Your task to perform on an android device: Go to ESPN.com Image 0: 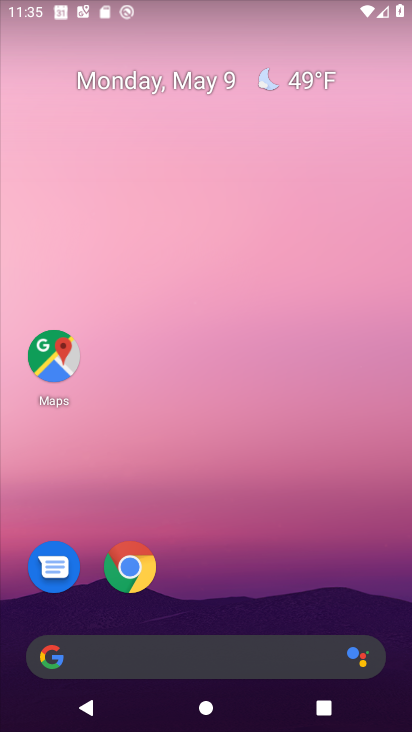
Step 0: click (125, 572)
Your task to perform on an android device: Go to ESPN.com Image 1: 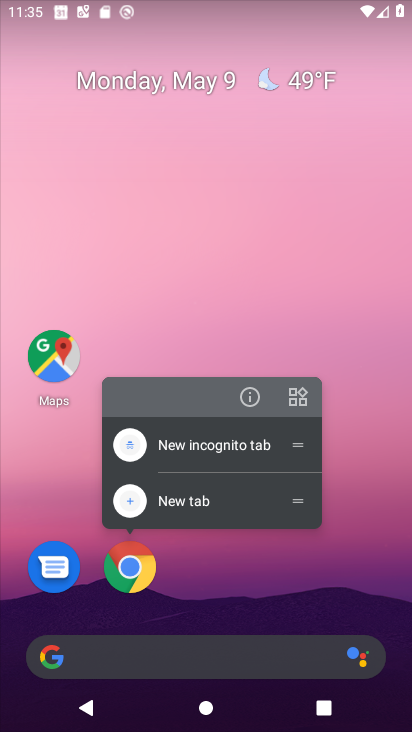
Step 1: click (125, 573)
Your task to perform on an android device: Go to ESPN.com Image 2: 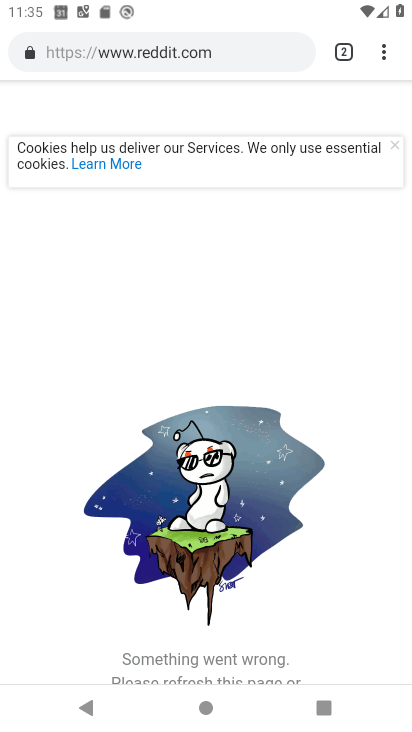
Step 2: click (341, 45)
Your task to perform on an android device: Go to ESPN.com Image 3: 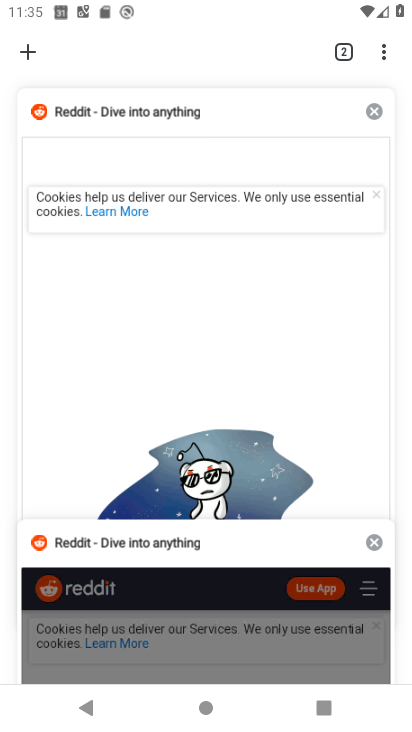
Step 3: click (25, 53)
Your task to perform on an android device: Go to ESPN.com Image 4: 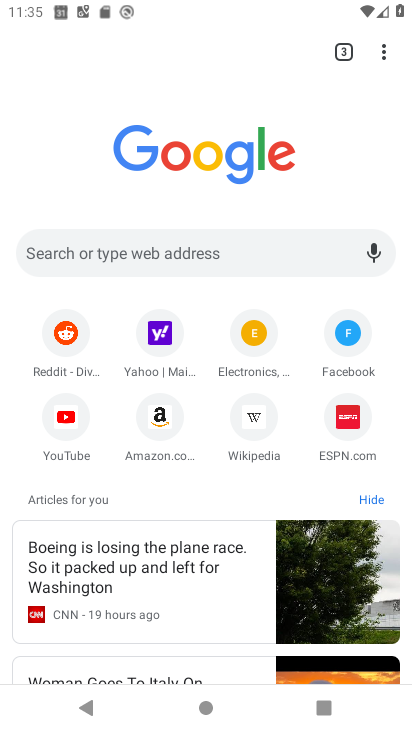
Step 4: click (349, 415)
Your task to perform on an android device: Go to ESPN.com Image 5: 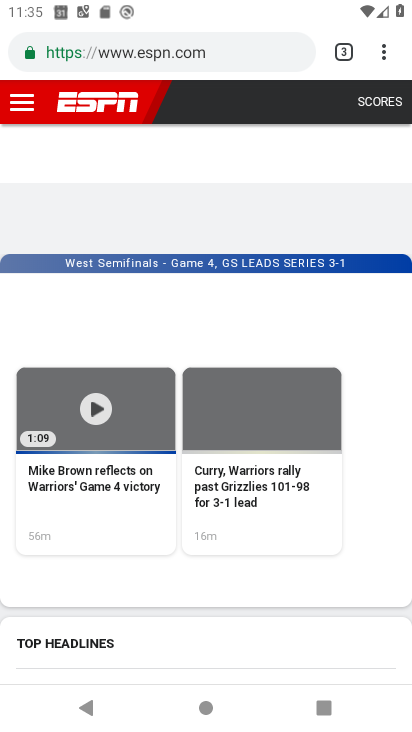
Step 5: task complete